Your task to perform on an android device: Open Maps and search for coffee Image 0: 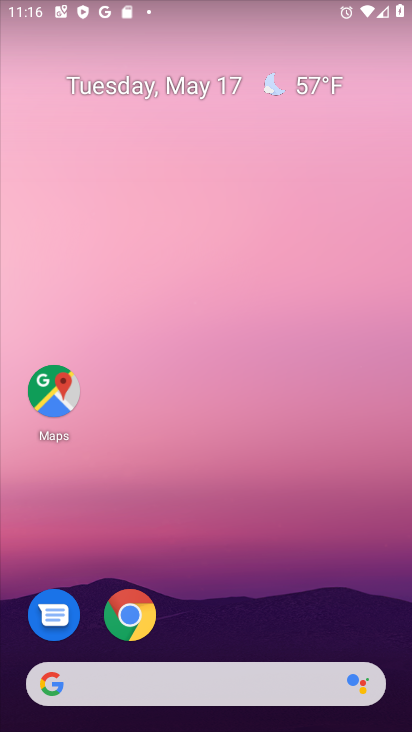
Step 0: click (49, 377)
Your task to perform on an android device: Open Maps and search for coffee Image 1: 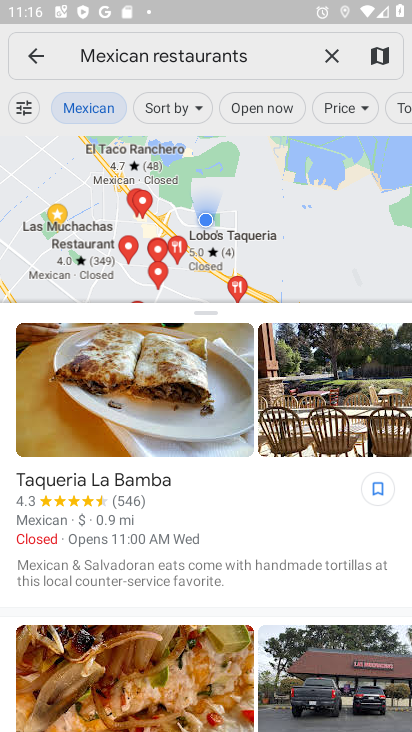
Step 1: click (296, 56)
Your task to perform on an android device: Open Maps and search for coffee Image 2: 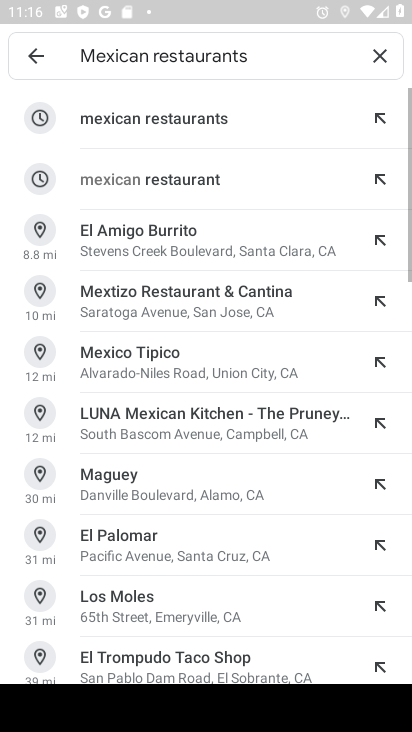
Step 2: click (378, 51)
Your task to perform on an android device: Open Maps and search for coffee Image 3: 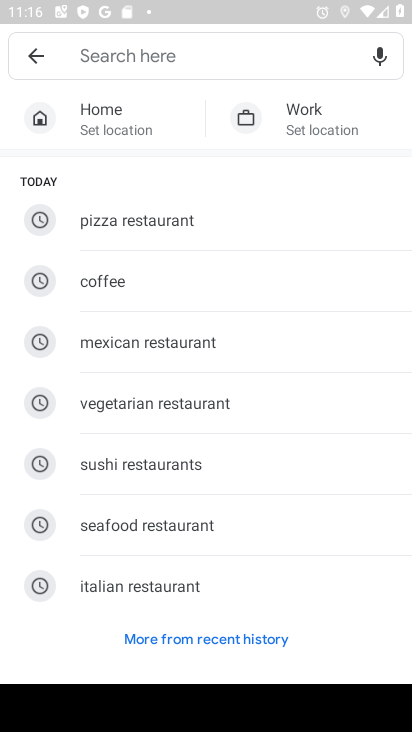
Step 3: click (138, 290)
Your task to perform on an android device: Open Maps and search for coffee Image 4: 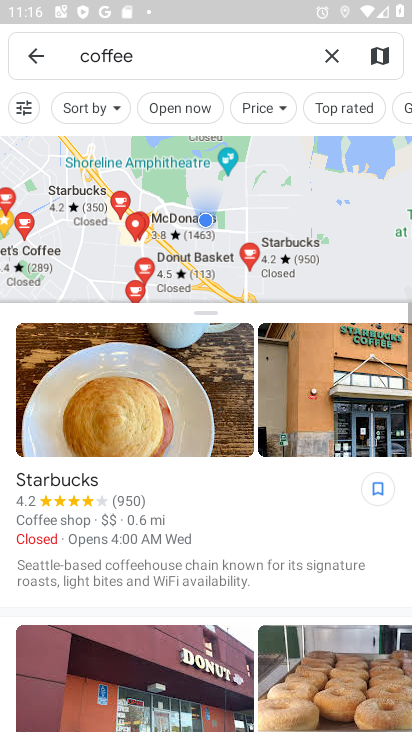
Step 4: task complete